Your task to perform on an android device: Go to Wikipedia Image 0: 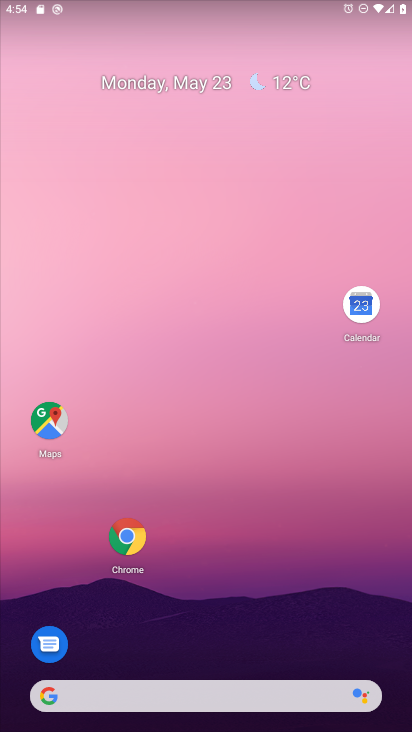
Step 0: drag from (278, 469) to (226, 17)
Your task to perform on an android device: Go to Wikipedia Image 1: 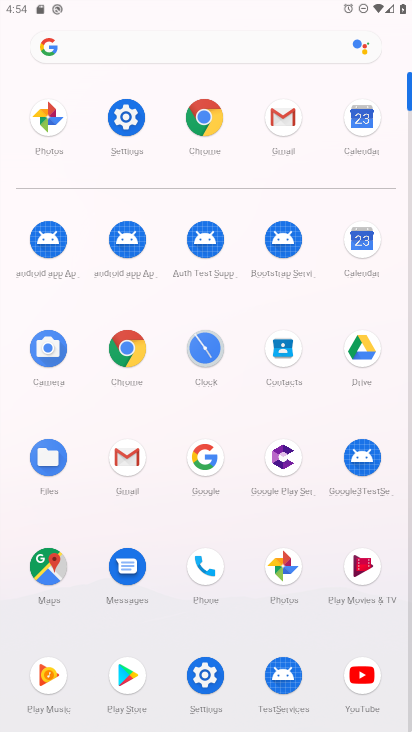
Step 1: click (206, 103)
Your task to perform on an android device: Go to Wikipedia Image 2: 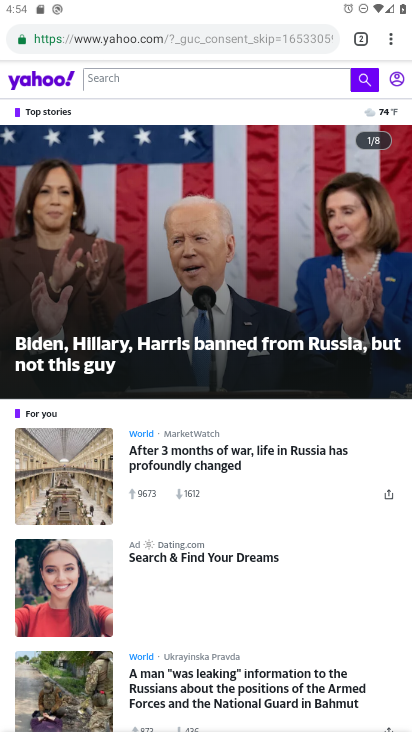
Step 2: click (139, 41)
Your task to perform on an android device: Go to Wikipedia Image 3: 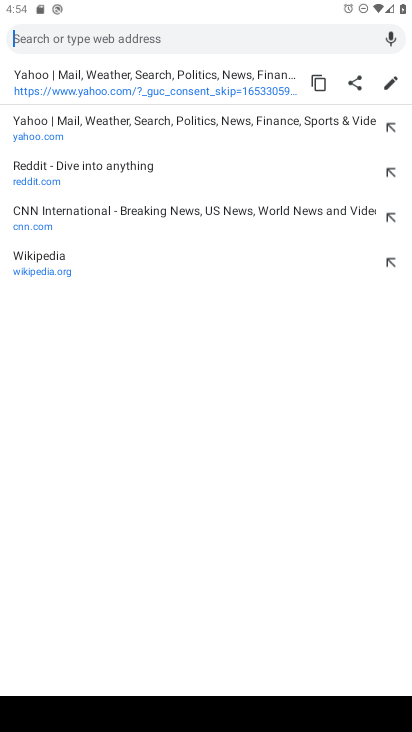
Step 3: click (28, 269)
Your task to perform on an android device: Go to Wikipedia Image 4: 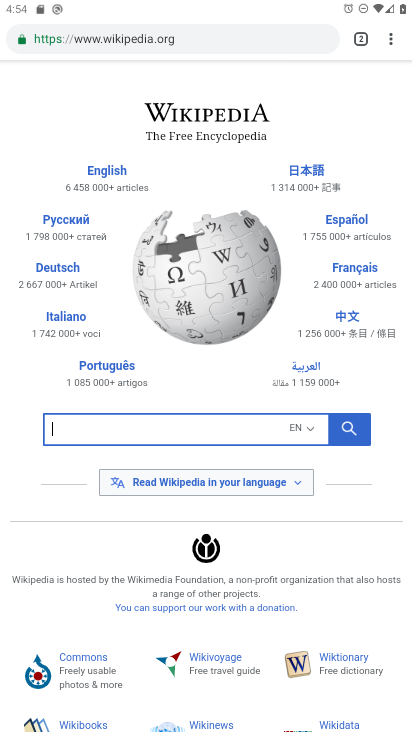
Step 4: task complete